Your task to perform on an android device: stop showing notifications on the lock screen Image 0: 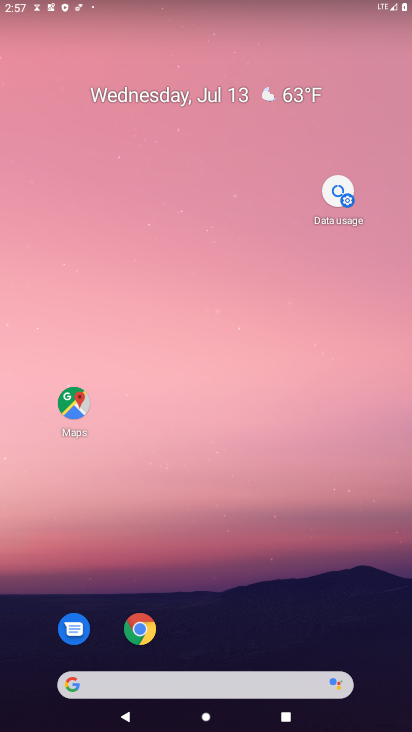
Step 0: drag from (196, 440) to (217, 117)
Your task to perform on an android device: stop showing notifications on the lock screen Image 1: 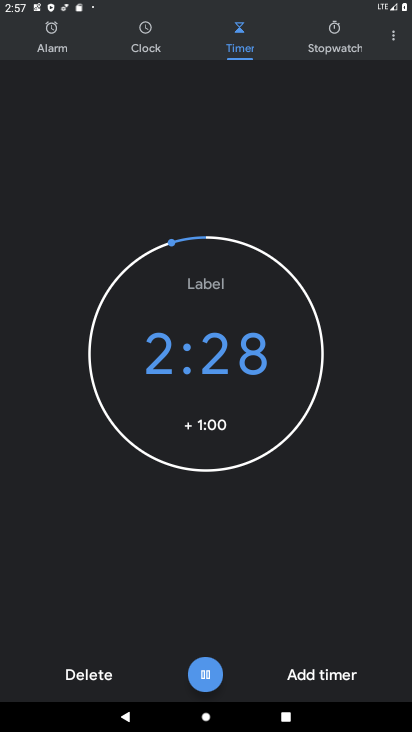
Step 1: press home button
Your task to perform on an android device: stop showing notifications on the lock screen Image 2: 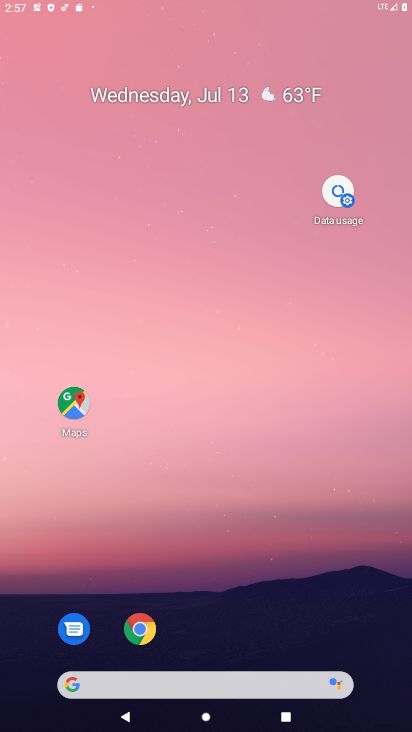
Step 2: drag from (196, 570) to (225, 60)
Your task to perform on an android device: stop showing notifications on the lock screen Image 3: 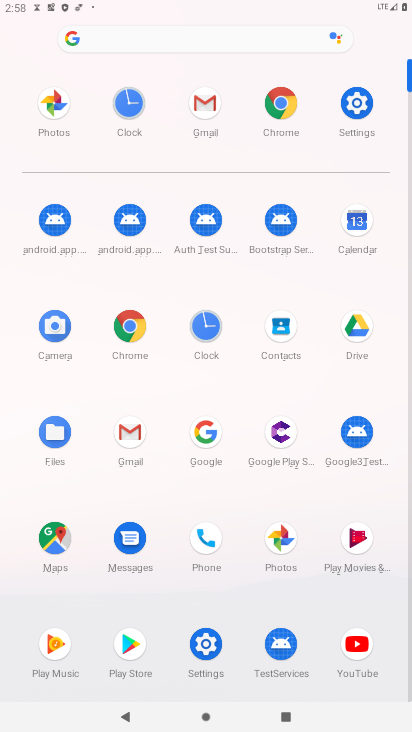
Step 3: click (356, 101)
Your task to perform on an android device: stop showing notifications on the lock screen Image 4: 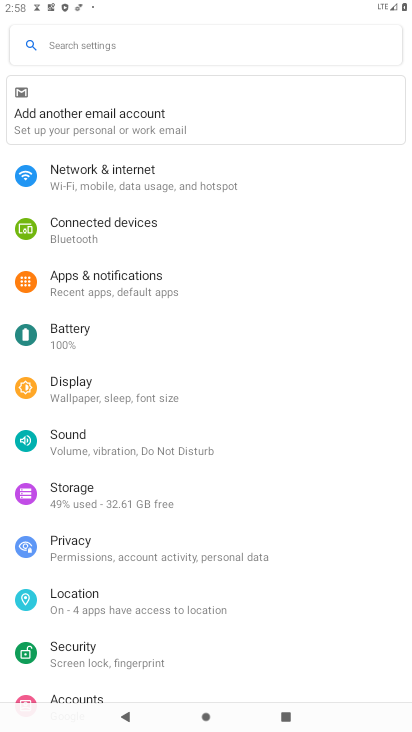
Step 4: click (111, 289)
Your task to perform on an android device: stop showing notifications on the lock screen Image 5: 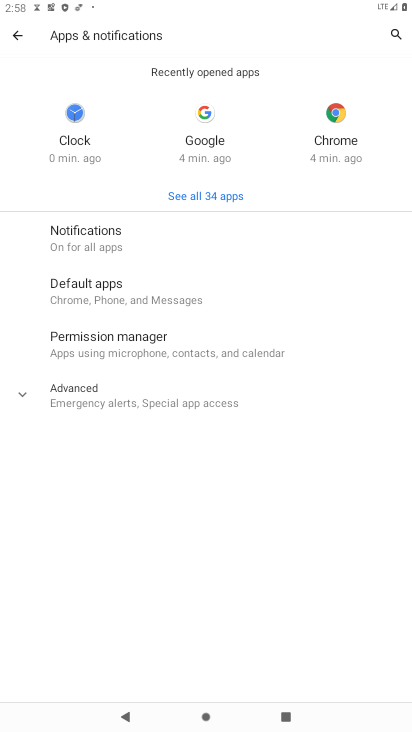
Step 5: click (112, 236)
Your task to perform on an android device: stop showing notifications on the lock screen Image 6: 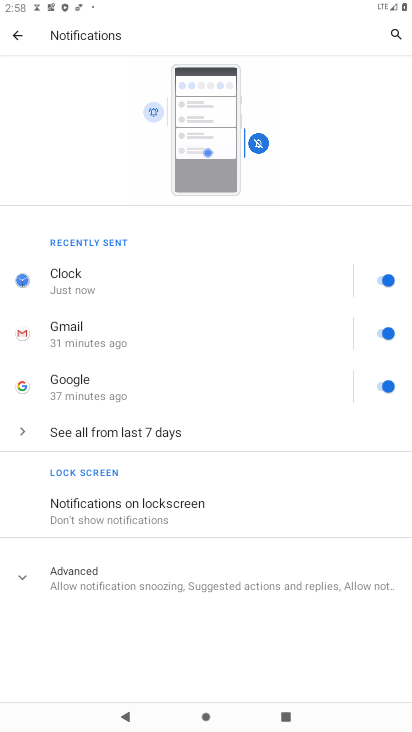
Step 6: click (145, 561)
Your task to perform on an android device: stop showing notifications on the lock screen Image 7: 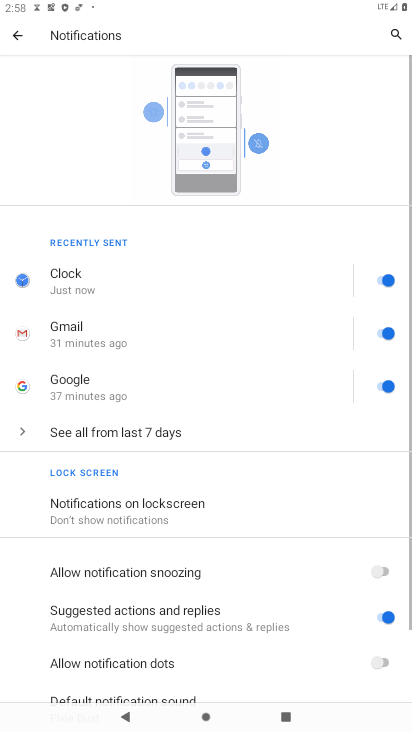
Step 7: drag from (188, 540) to (247, 223)
Your task to perform on an android device: stop showing notifications on the lock screen Image 8: 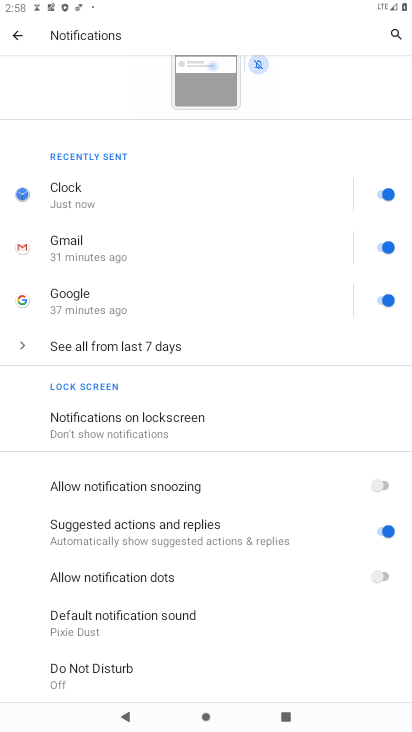
Step 8: click (155, 424)
Your task to perform on an android device: stop showing notifications on the lock screen Image 9: 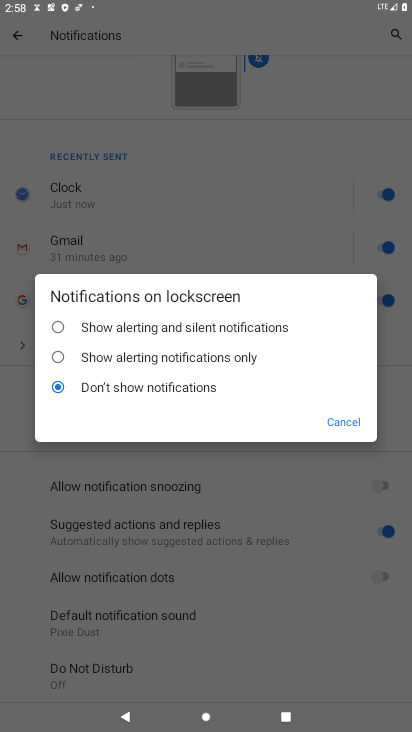
Step 9: task complete